Your task to perform on an android device: snooze an email in the gmail app Image 0: 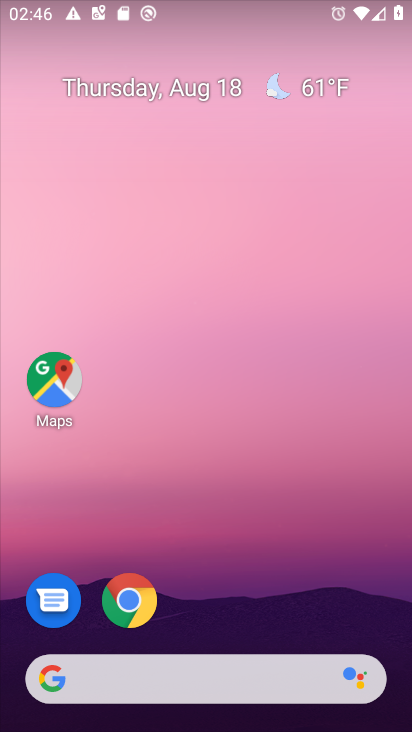
Step 0: press home button
Your task to perform on an android device: snooze an email in the gmail app Image 1: 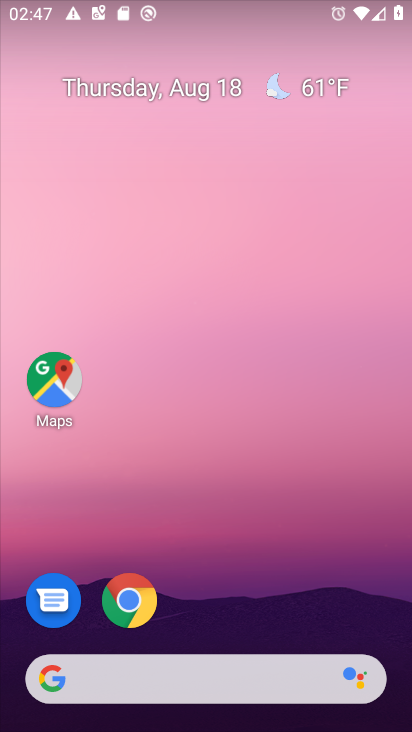
Step 1: drag from (221, 617) to (269, 14)
Your task to perform on an android device: snooze an email in the gmail app Image 2: 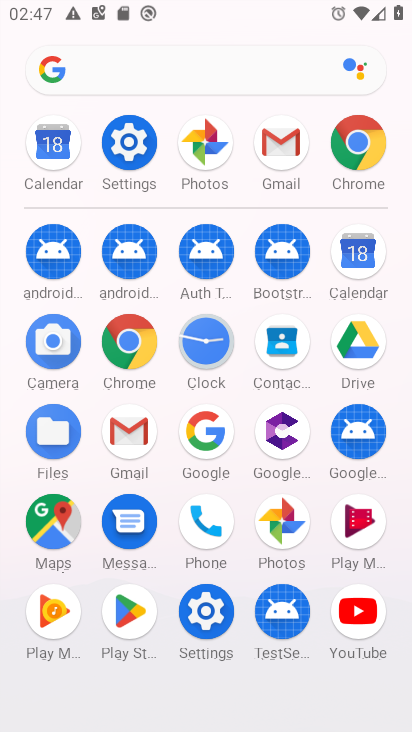
Step 2: click (280, 139)
Your task to perform on an android device: snooze an email in the gmail app Image 3: 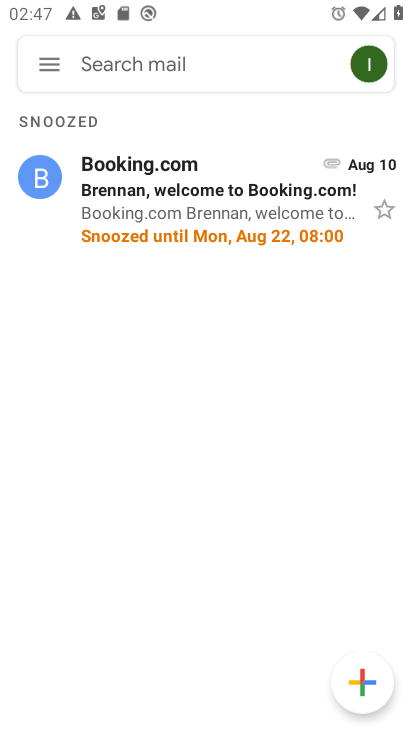
Step 3: task complete